Your task to perform on an android device: check data usage Image 0: 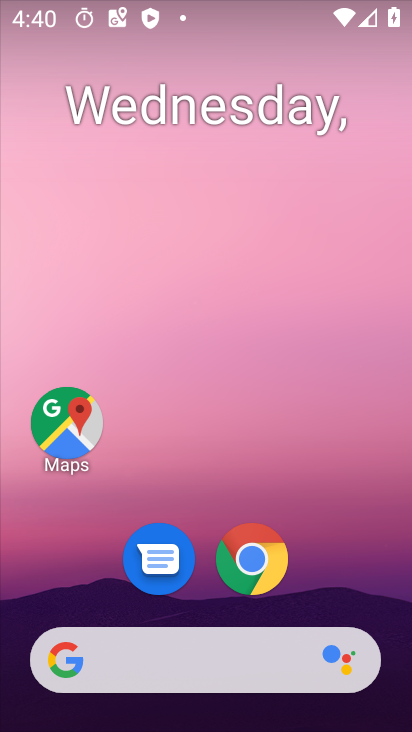
Step 0: drag from (327, 498) to (216, 67)
Your task to perform on an android device: check data usage Image 1: 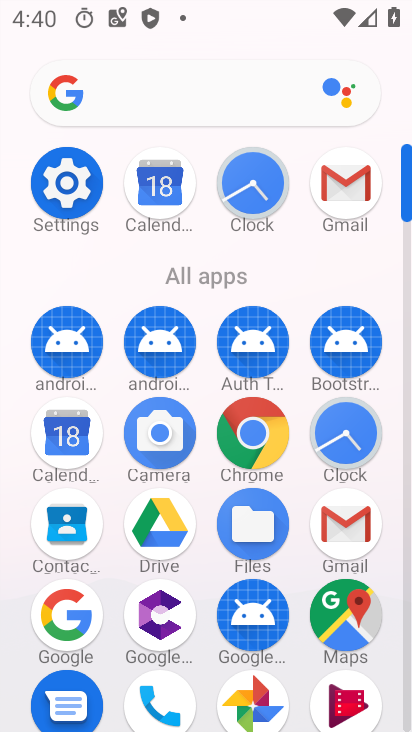
Step 1: click (72, 195)
Your task to perform on an android device: check data usage Image 2: 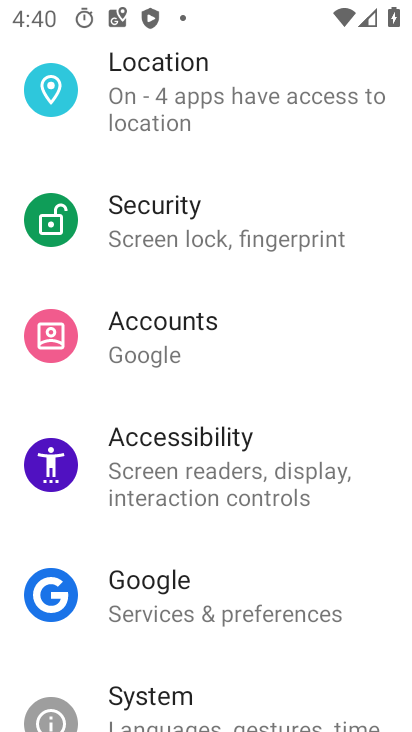
Step 2: drag from (258, 144) to (244, 657)
Your task to perform on an android device: check data usage Image 3: 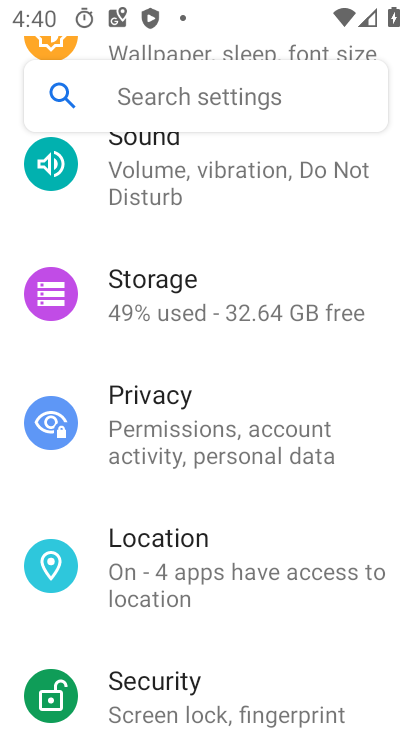
Step 3: drag from (254, 215) to (228, 722)
Your task to perform on an android device: check data usage Image 4: 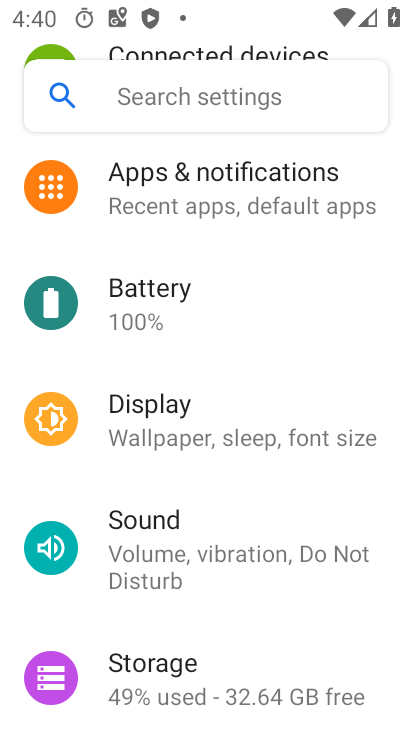
Step 4: drag from (272, 258) to (233, 710)
Your task to perform on an android device: check data usage Image 5: 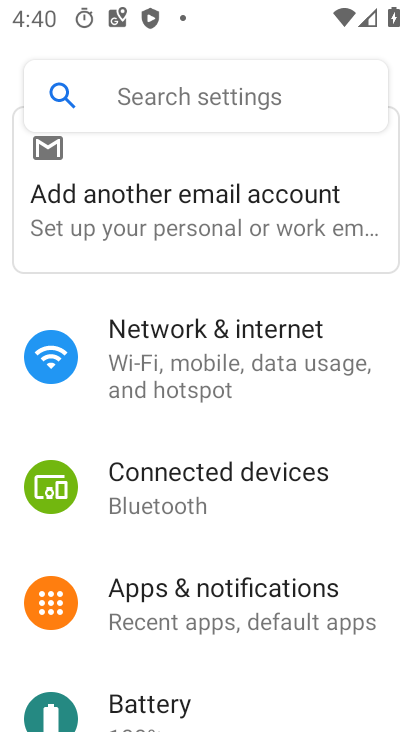
Step 5: click (199, 367)
Your task to perform on an android device: check data usage Image 6: 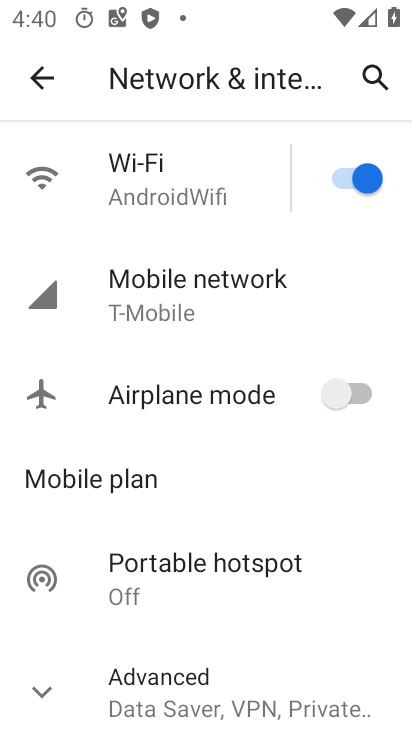
Step 6: click (175, 293)
Your task to perform on an android device: check data usage Image 7: 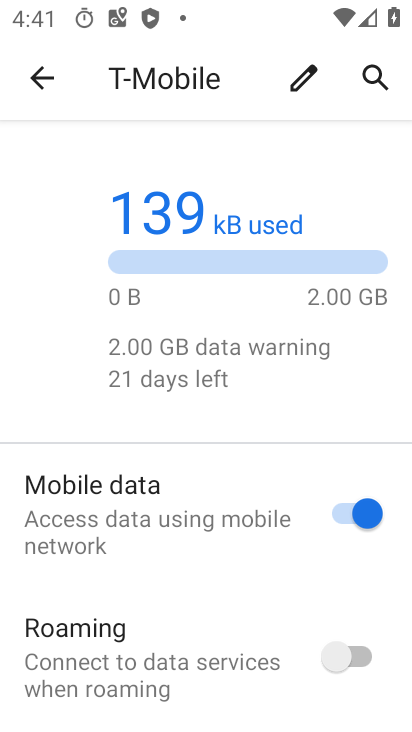
Step 7: task complete